Your task to perform on an android device: check android version Image 0: 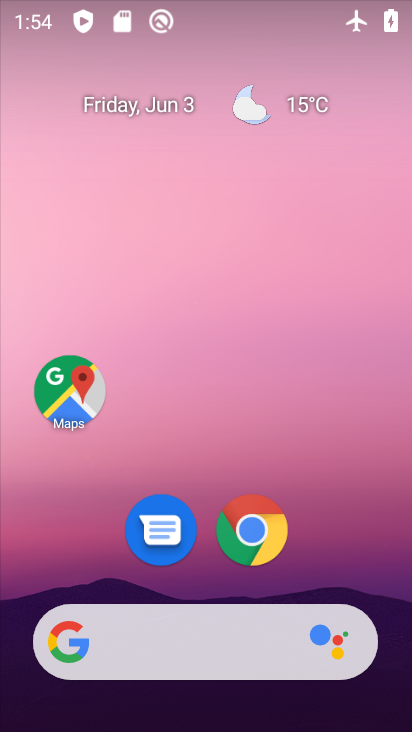
Step 0: drag from (275, 572) to (255, 181)
Your task to perform on an android device: check android version Image 1: 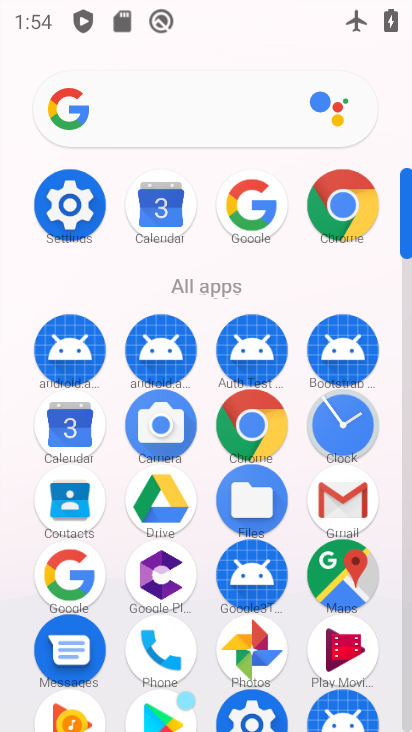
Step 1: click (63, 205)
Your task to perform on an android device: check android version Image 2: 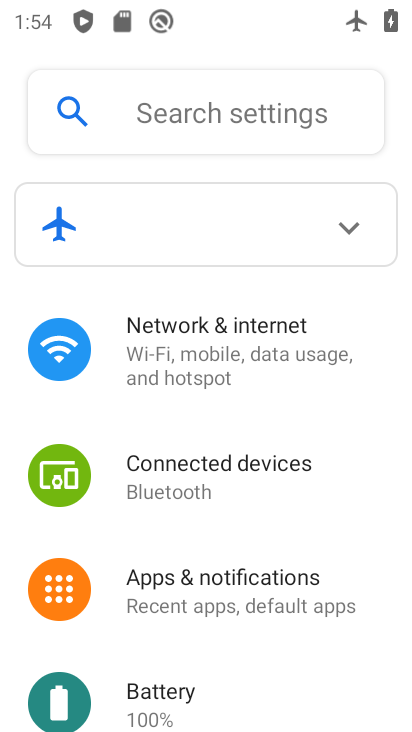
Step 2: drag from (227, 652) to (229, 373)
Your task to perform on an android device: check android version Image 3: 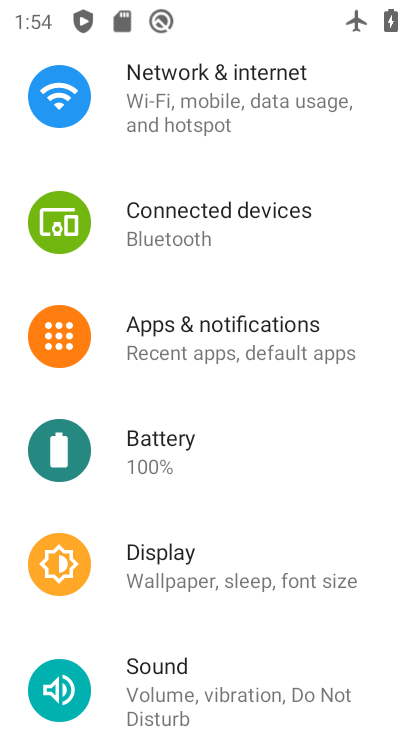
Step 3: drag from (268, 622) to (267, 328)
Your task to perform on an android device: check android version Image 4: 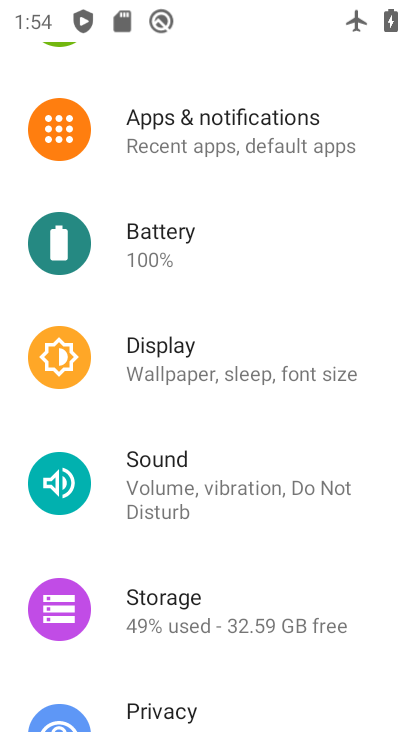
Step 4: drag from (275, 654) to (254, 314)
Your task to perform on an android device: check android version Image 5: 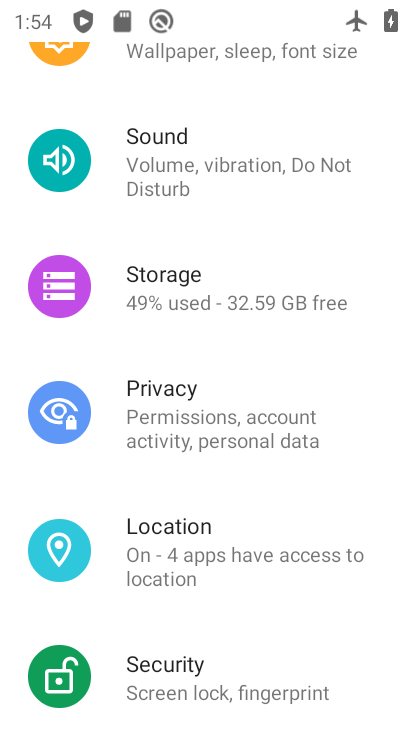
Step 5: drag from (250, 618) to (263, 338)
Your task to perform on an android device: check android version Image 6: 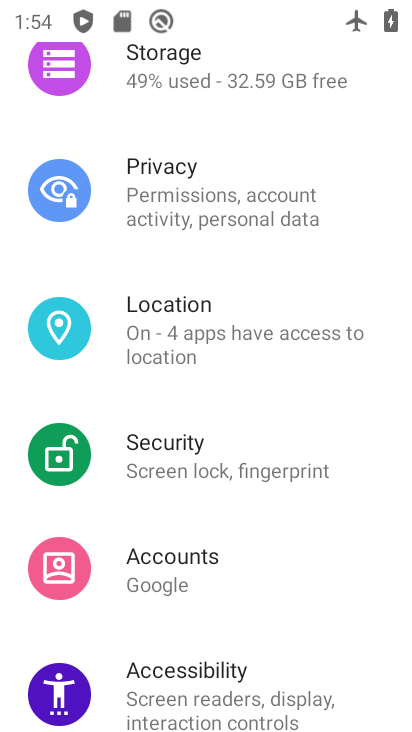
Step 6: drag from (311, 635) to (297, 435)
Your task to perform on an android device: check android version Image 7: 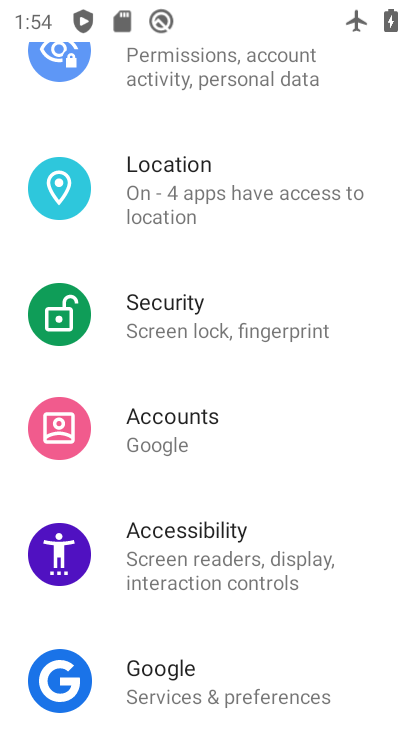
Step 7: drag from (256, 533) to (274, 343)
Your task to perform on an android device: check android version Image 8: 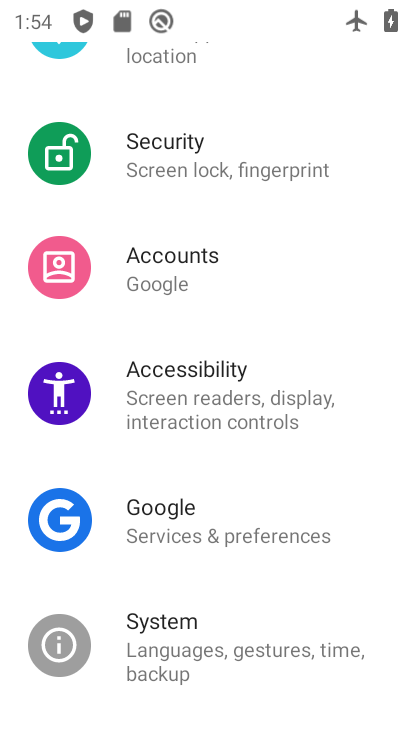
Step 8: drag from (196, 624) to (222, 323)
Your task to perform on an android device: check android version Image 9: 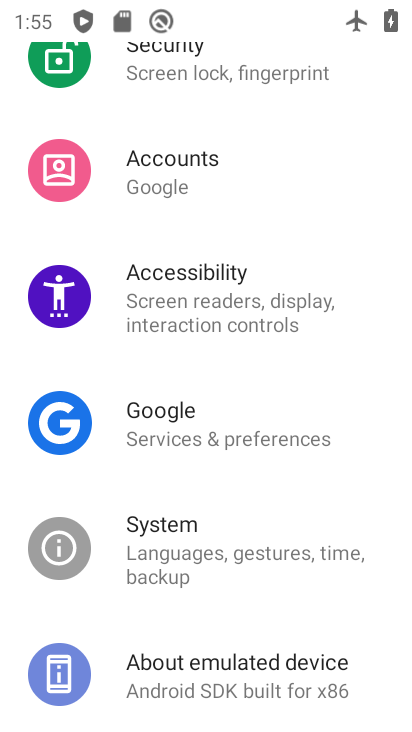
Step 9: click (181, 687)
Your task to perform on an android device: check android version Image 10: 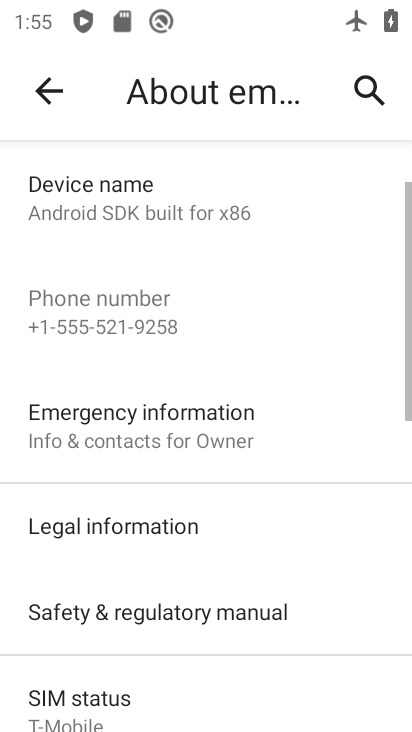
Step 10: drag from (271, 625) to (254, 212)
Your task to perform on an android device: check android version Image 11: 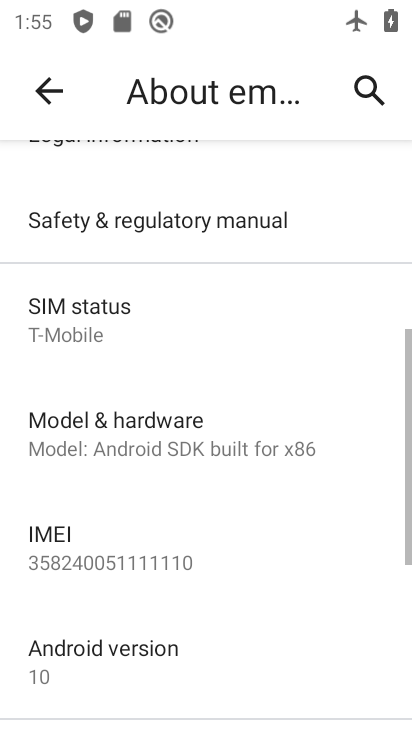
Step 11: drag from (124, 651) to (145, 383)
Your task to perform on an android device: check android version Image 12: 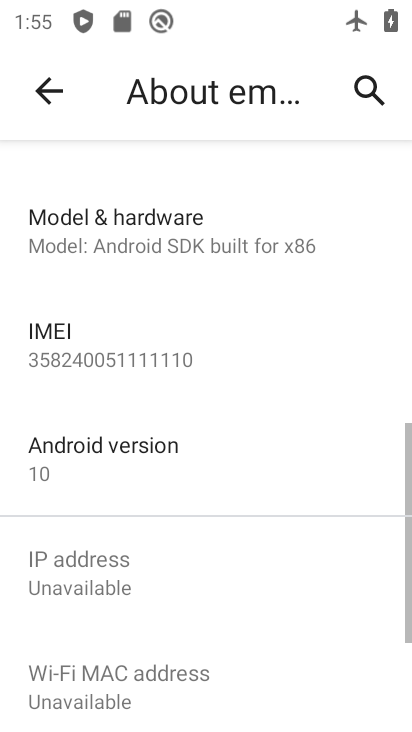
Step 12: click (102, 469)
Your task to perform on an android device: check android version Image 13: 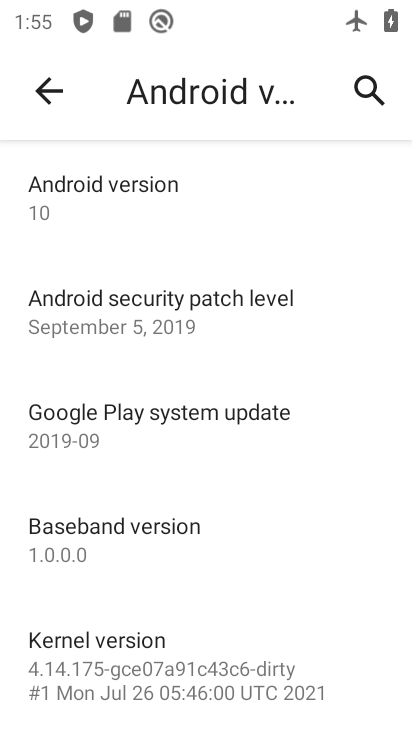
Step 13: task complete